Your task to perform on an android device: Search for vegetarian restaurants on Maps Image 0: 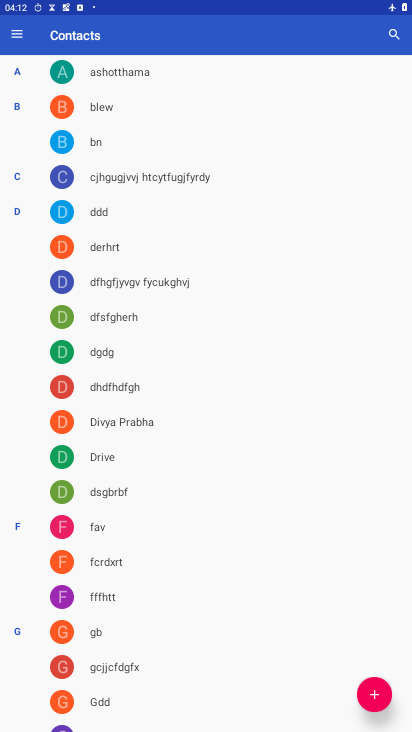
Step 0: press home button
Your task to perform on an android device: Search for vegetarian restaurants on Maps Image 1: 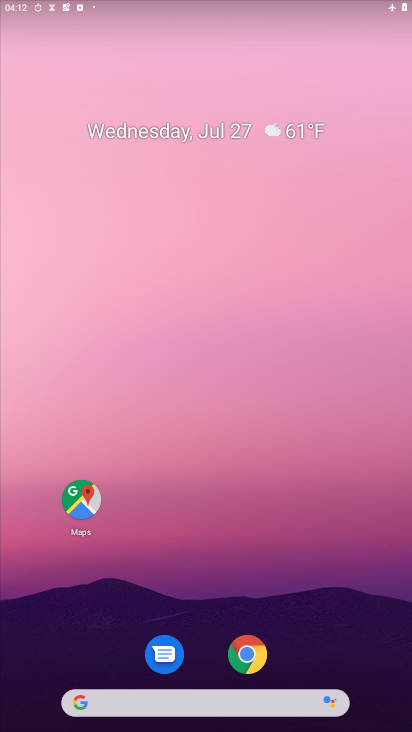
Step 1: drag from (169, 706) to (227, 8)
Your task to perform on an android device: Search for vegetarian restaurants on Maps Image 2: 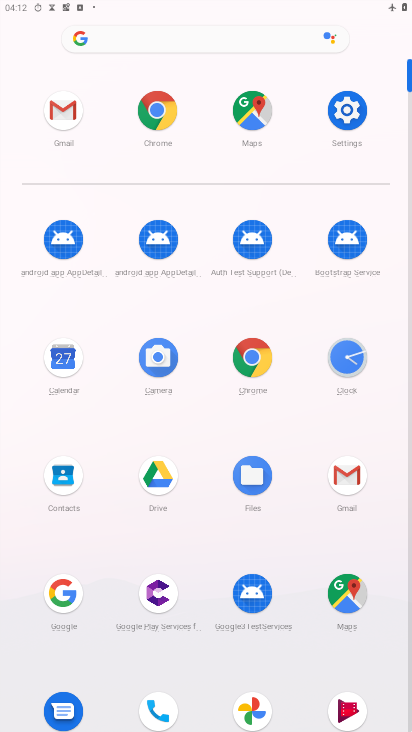
Step 2: click (251, 347)
Your task to perform on an android device: Search for vegetarian restaurants on Maps Image 3: 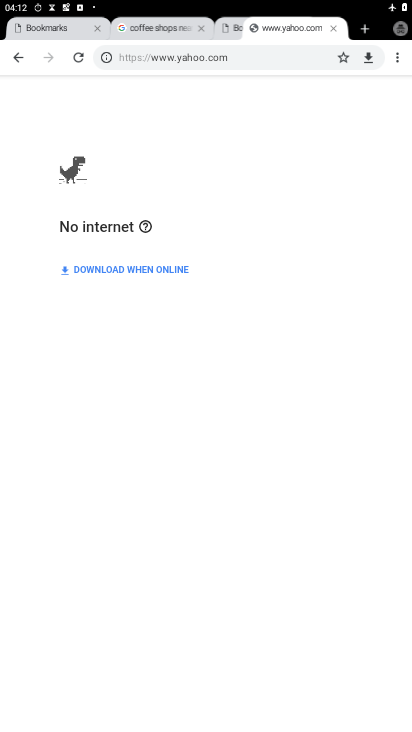
Step 3: press home button
Your task to perform on an android device: Search for vegetarian restaurants on Maps Image 4: 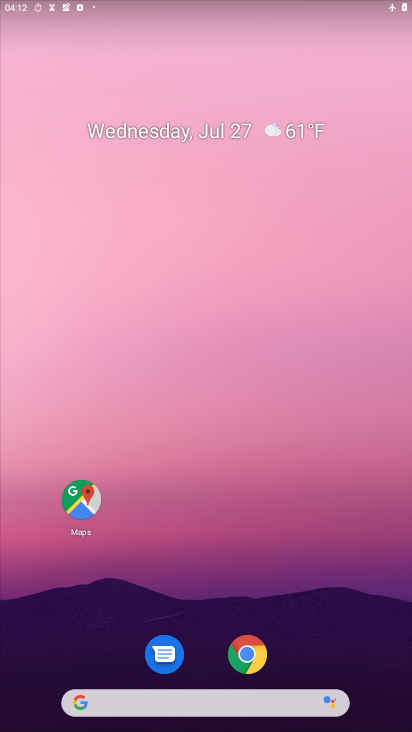
Step 4: drag from (272, 594) to (285, 83)
Your task to perform on an android device: Search for vegetarian restaurants on Maps Image 5: 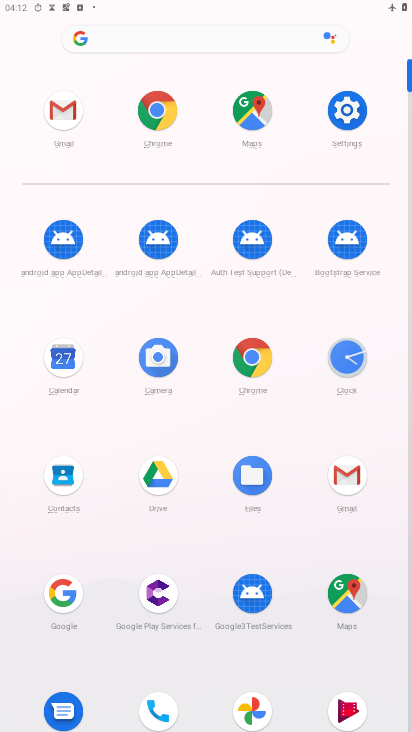
Step 5: click (355, 574)
Your task to perform on an android device: Search for vegetarian restaurants on Maps Image 6: 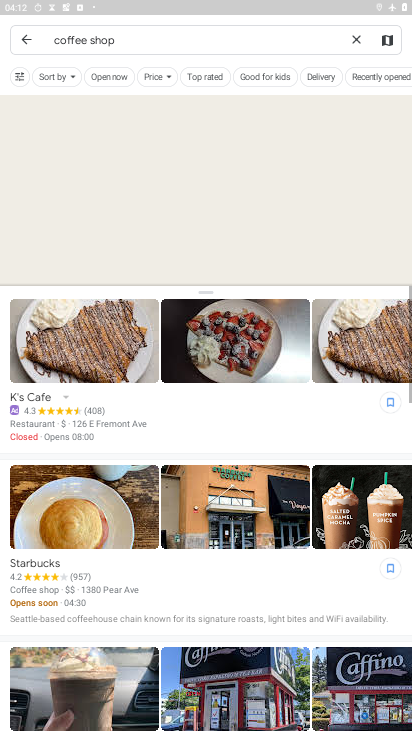
Step 6: click (160, 42)
Your task to perform on an android device: Search for vegetarian restaurants on Maps Image 7: 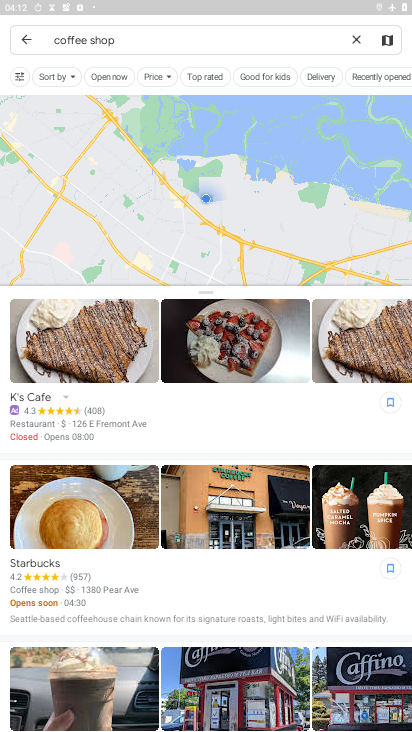
Step 7: click (160, 42)
Your task to perform on an android device: Search for vegetarian restaurants on Maps Image 8: 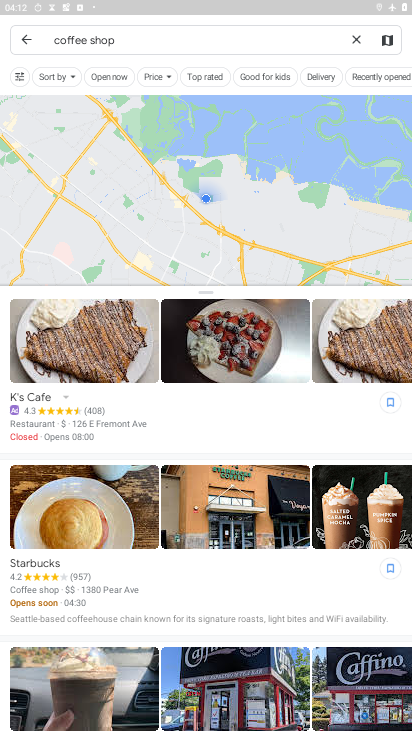
Step 8: click (160, 42)
Your task to perform on an android device: Search for vegetarian restaurants on Maps Image 9: 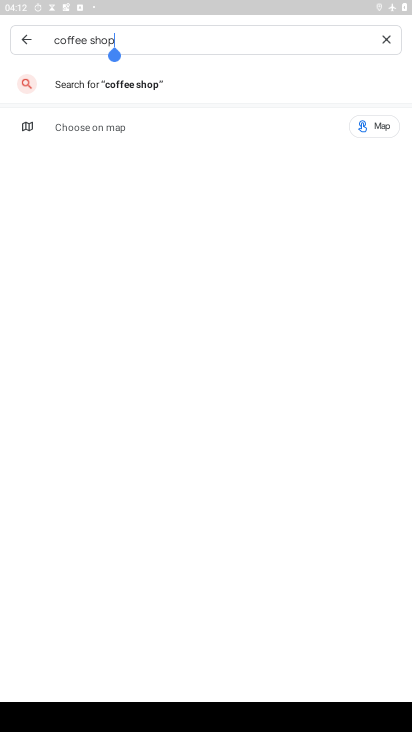
Step 9: click (27, 39)
Your task to perform on an android device: Search for vegetarian restaurants on Maps Image 10: 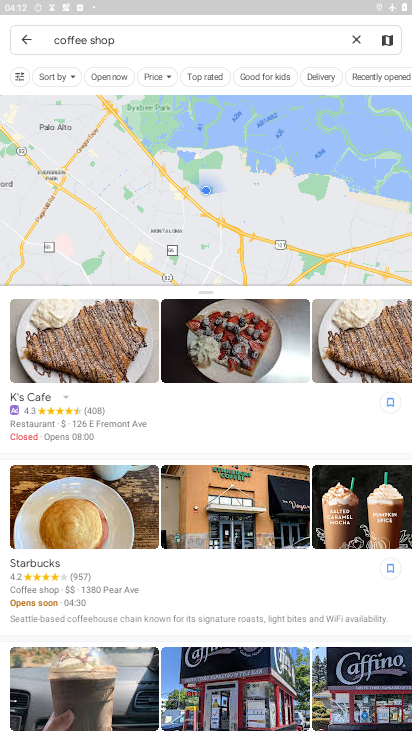
Step 10: click (351, 41)
Your task to perform on an android device: Search for vegetarian restaurants on Maps Image 11: 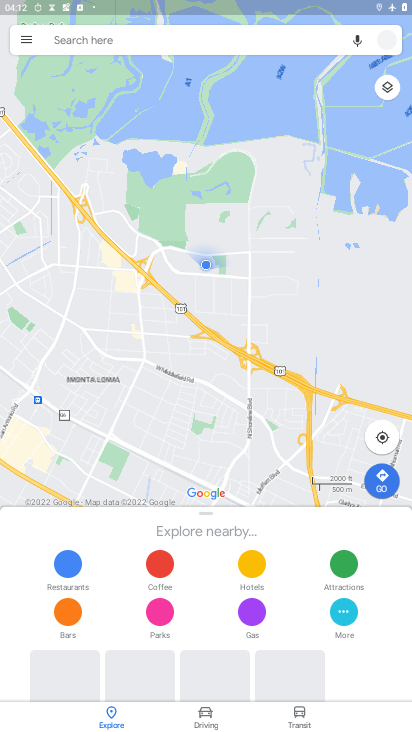
Step 11: click (203, 29)
Your task to perform on an android device: Search for vegetarian restaurants on Maps Image 12: 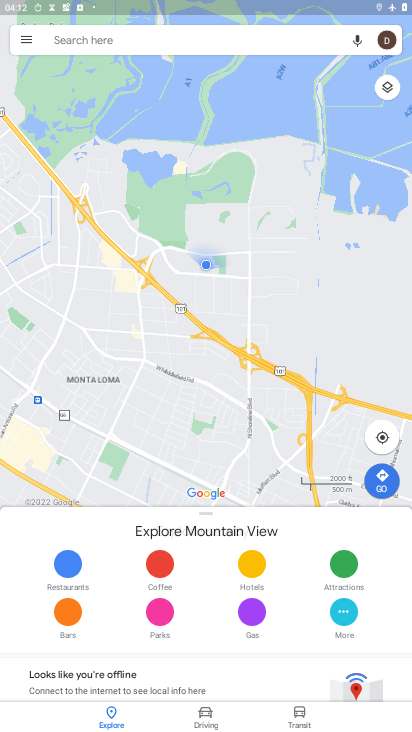
Step 12: click (202, 29)
Your task to perform on an android device: Search for vegetarian restaurants on Maps Image 13: 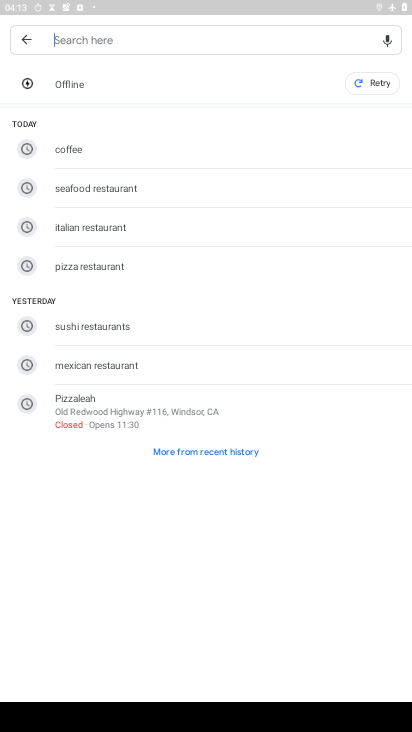
Step 13: type "vegetarian restau"
Your task to perform on an android device: Search for vegetarian restaurants on Maps Image 14: 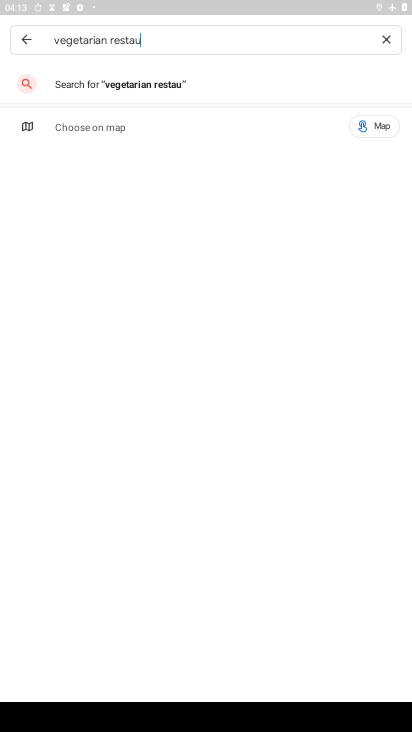
Step 14: click (178, 84)
Your task to perform on an android device: Search for vegetarian restaurants on Maps Image 15: 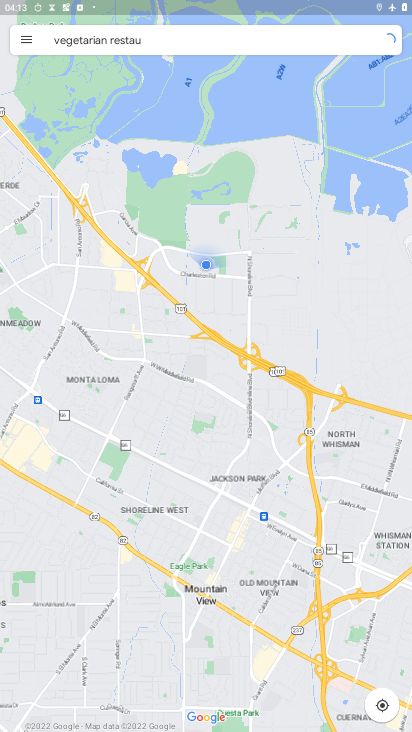
Step 15: task complete